Your task to perform on an android device: Go to Reddit.com Image 0: 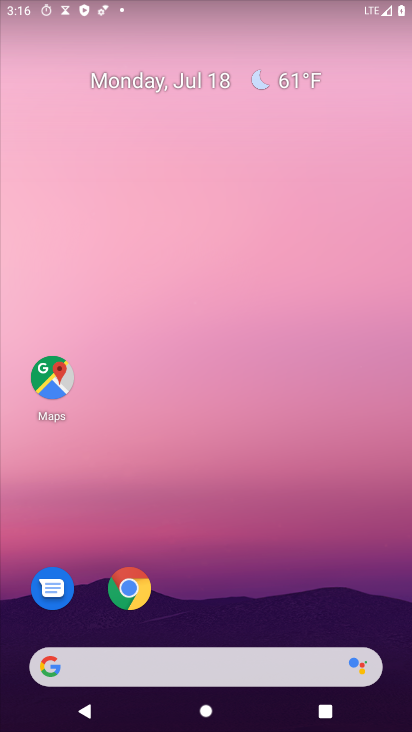
Step 0: drag from (296, 559) to (314, 94)
Your task to perform on an android device: Go to Reddit.com Image 1: 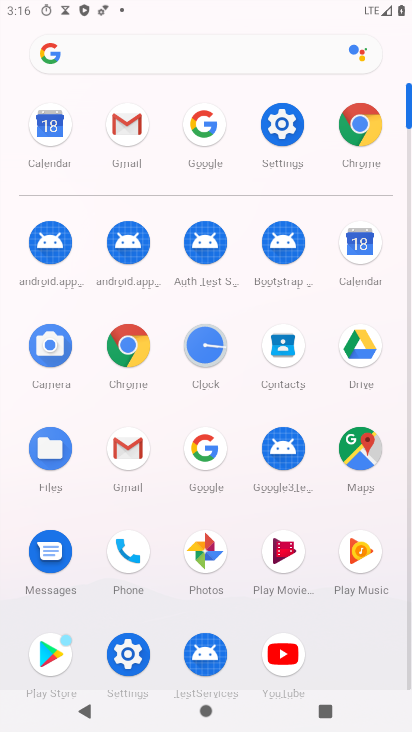
Step 1: click (121, 361)
Your task to perform on an android device: Go to Reddit.com Image 2: 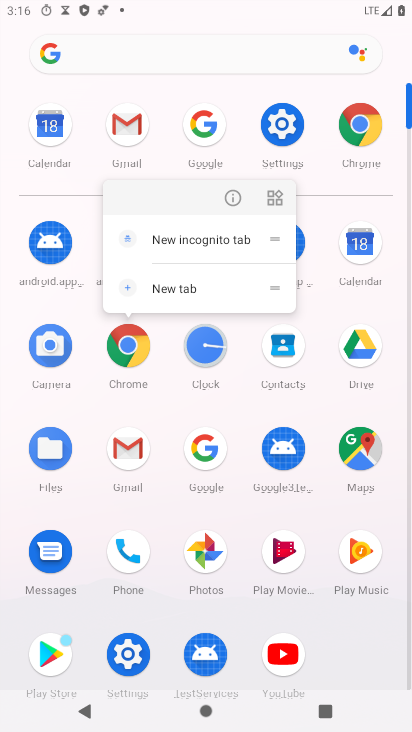
Step 2: click (131, 351)
Your task to perform on an android device: Go to Reddit.com Image 3: 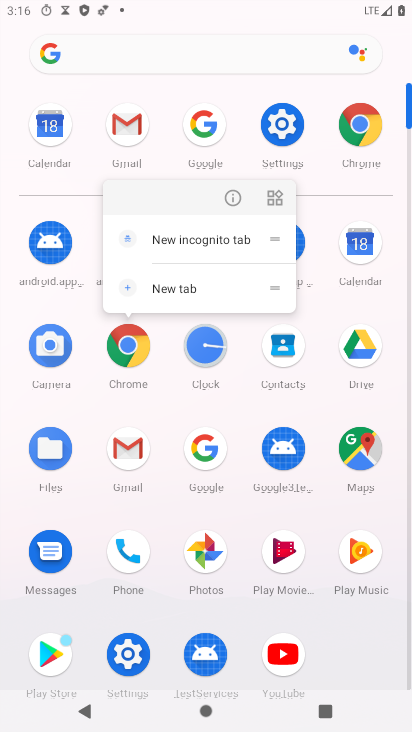
Step 3: click (131, 351)
Your task to perform on an android device: Go to Reddit.com Image 4: 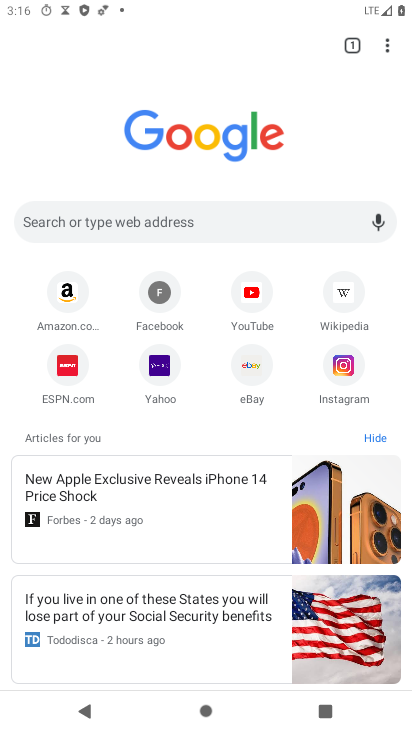
Step 4: click (131, 228)
Your task to perform on an android device: Go to Reddit.com Image 5: 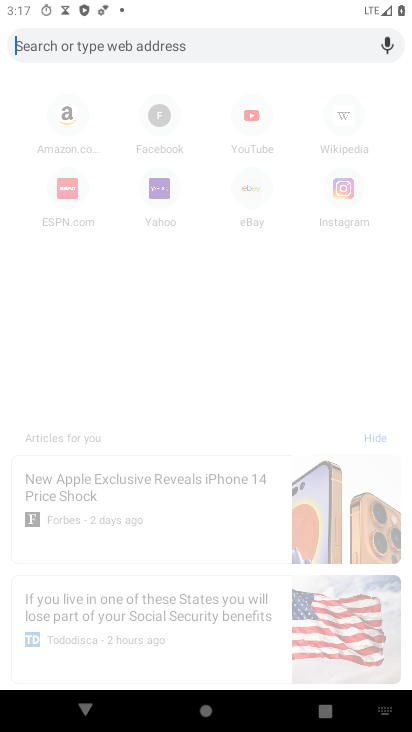
Step 5: type " Reddit.com"
Your task to perform on an android device: Go to Reddit.com Image 6: 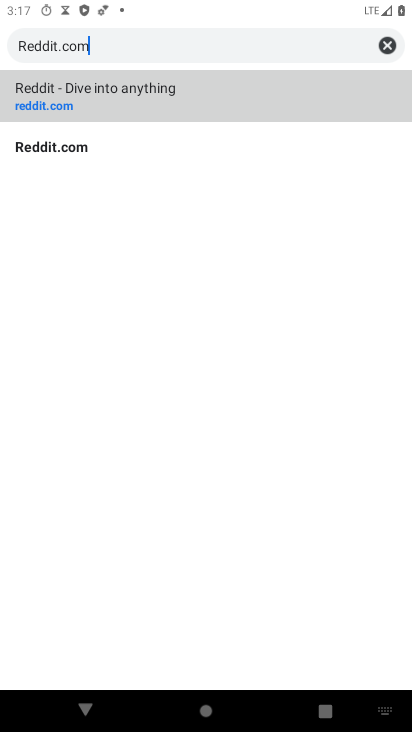
Step 6: press enter
Your task to perform on an android device: Go to Reddit.com Image 7: 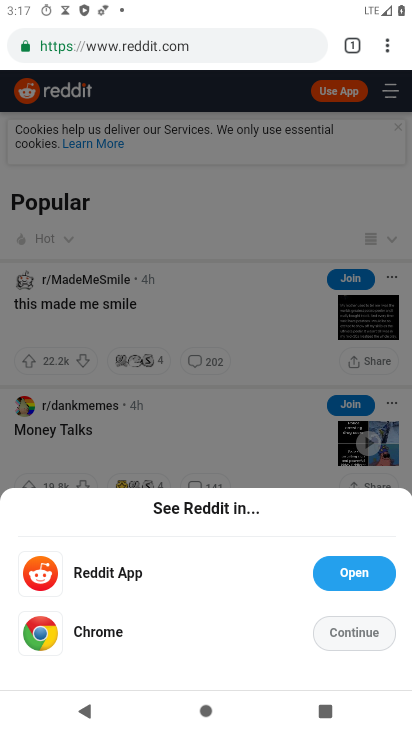
Step 7: task complete